Your task to perform on an android device: turn off notifications settings in the gmail app Image 0: 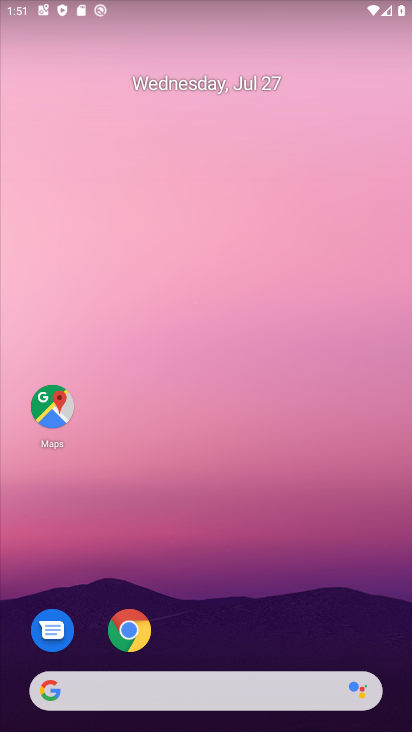
Step 0: drag from (381, 634) to (275, 44)
Your task to perform on an android device: turn off notifications settings in the gmail app Image 1: 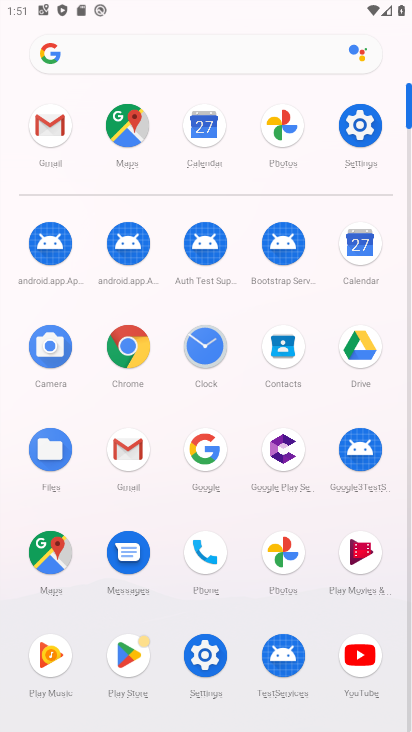
Step 1: click (129, 447)
Your task to perform on an android device: turn off notifications settings in the gmail app Image 2: 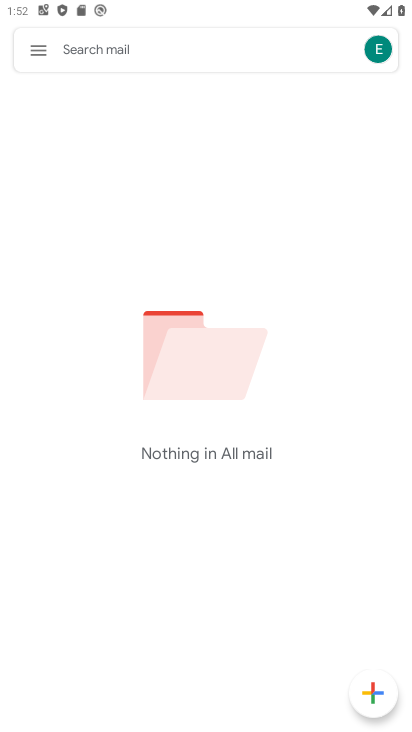
Step 2: click (35, 52)
Your task to perform on an android device: turn off notifications settings in the gmail app Image 3: 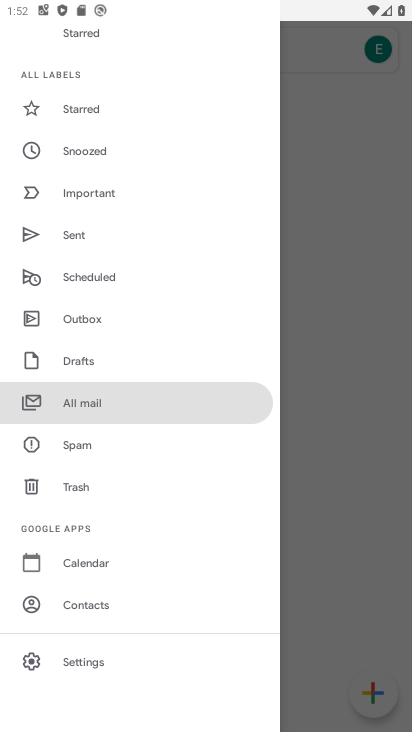
Step 3: click (84, 654)
Your task to perform on an android device: turn off notifications settings in the gmail app Image 4: 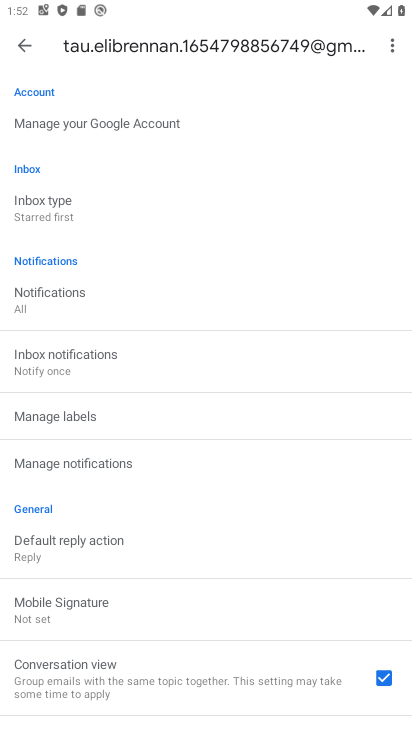
Step 4: click (73, 461)
Your task to perform on an android device: turn off notifications settings in the gmail app Image 5: 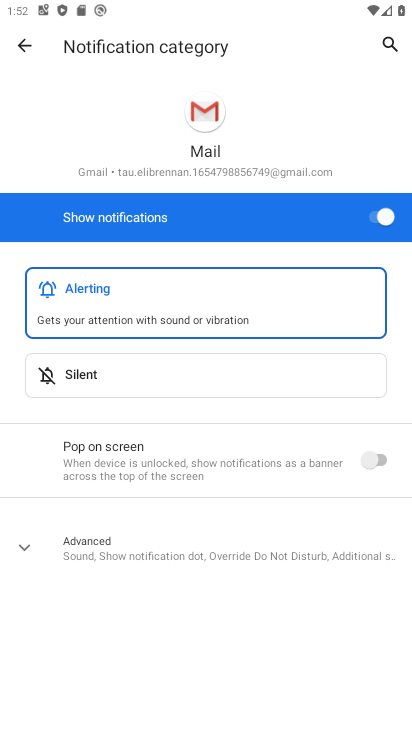
Step 5: click (374, 215)
Your task to perform on an android device: turn off notifications settings in the gmail app Image 6: 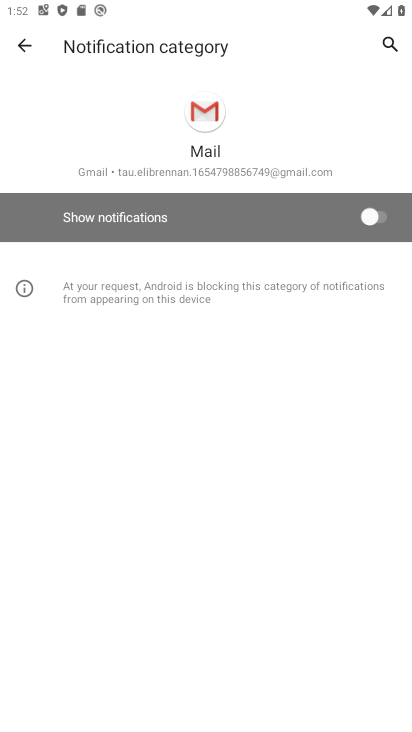
Step 6: task complete